Your task to perform on an android device: What's US dollar exchange rateagainst the Mexican Peso? Image 0: 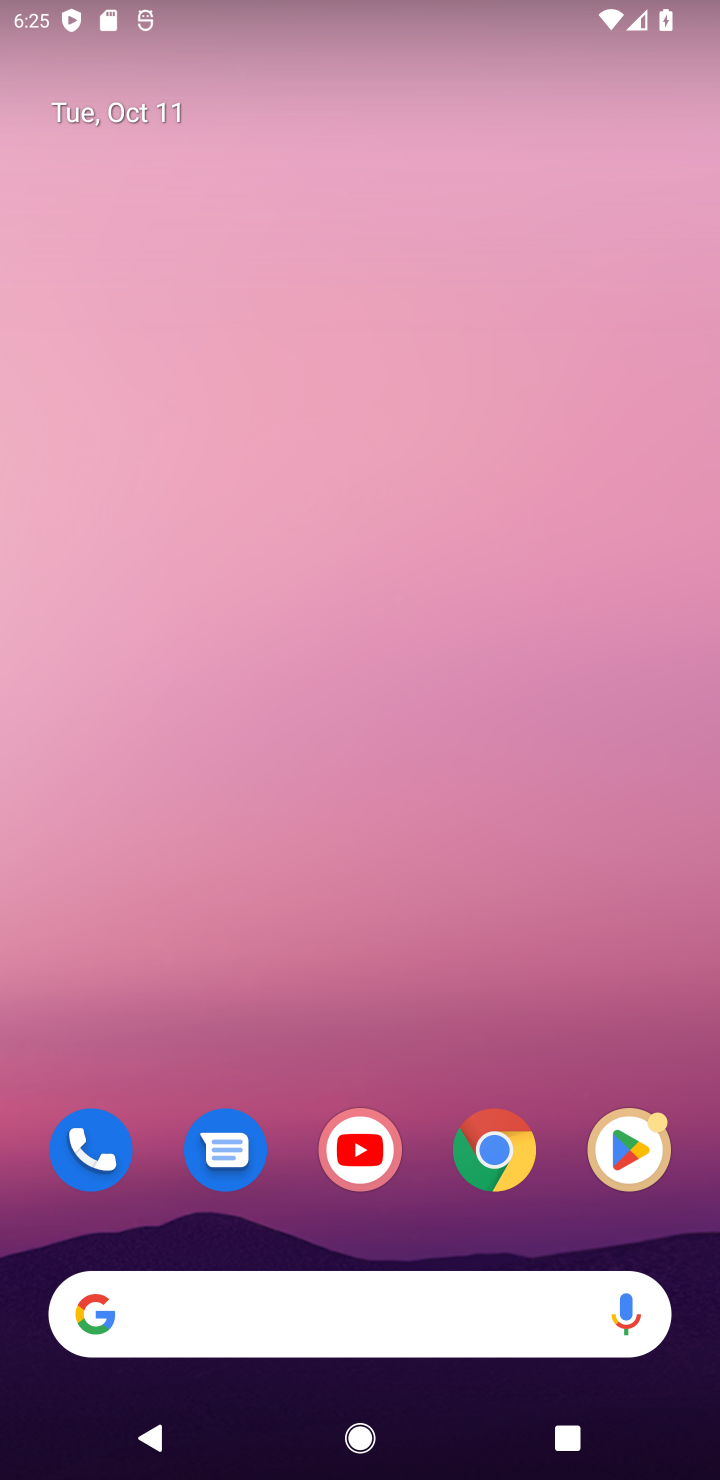
Step 0: click (490, 1149)
Your task to perform on an android device: What's US dollar exchange rateagainst the Mexican Peso? Image 1: 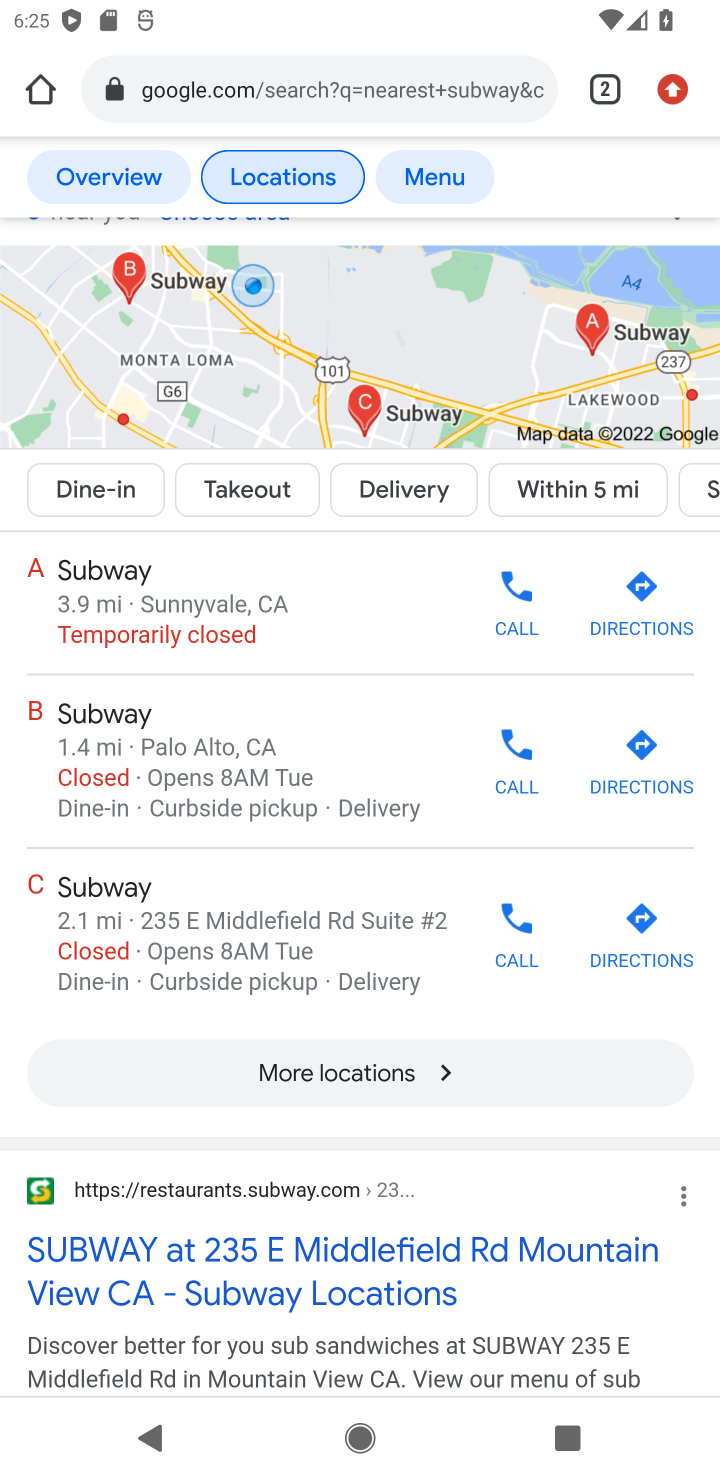
Step 1: click (301, 93)
Your task to perform on an android device: What's US dollar exchange rateagainst the Mexican Peso? Image 2: 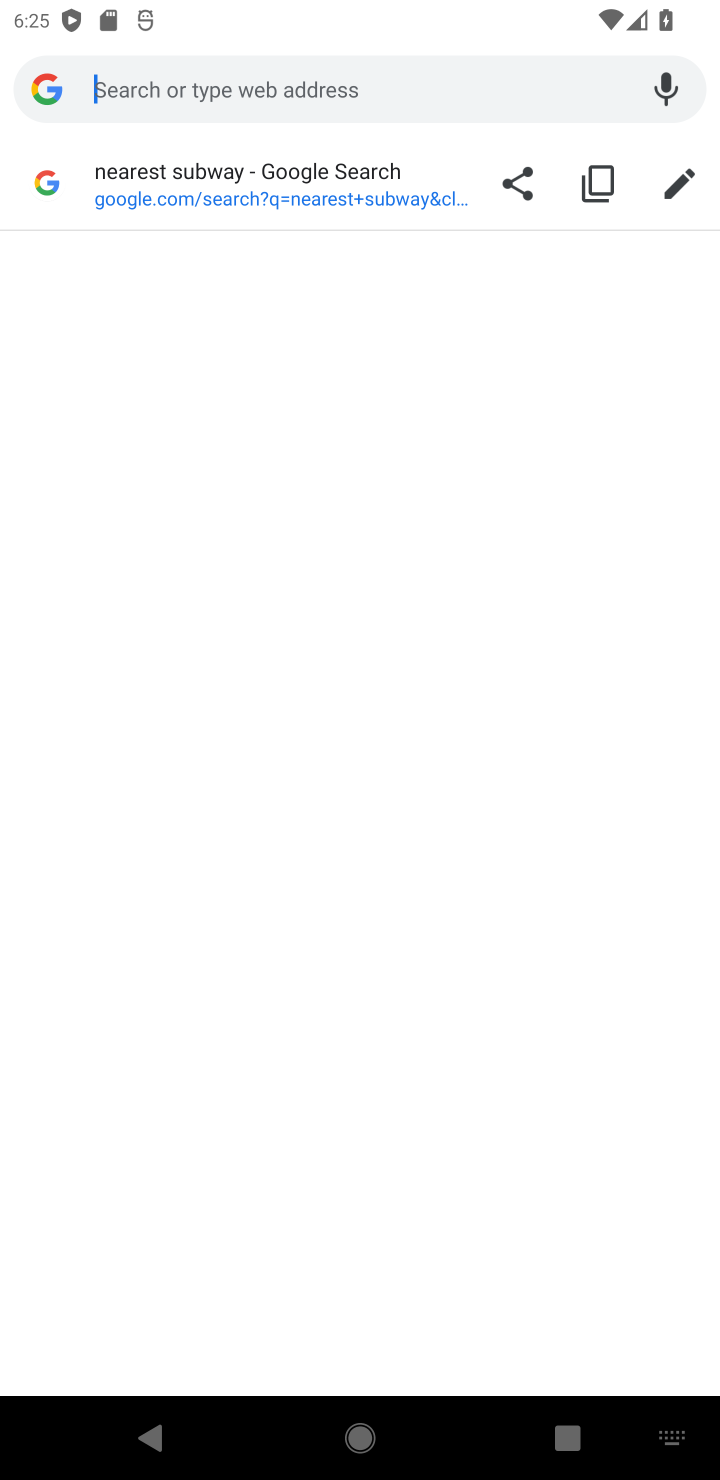
Step 2: type "US dollar exchange rateagainst the Mexican Peso"
Your task to perform on an android device: What's US dollar exchange rateagainst the Mexican Peso? Image 3: 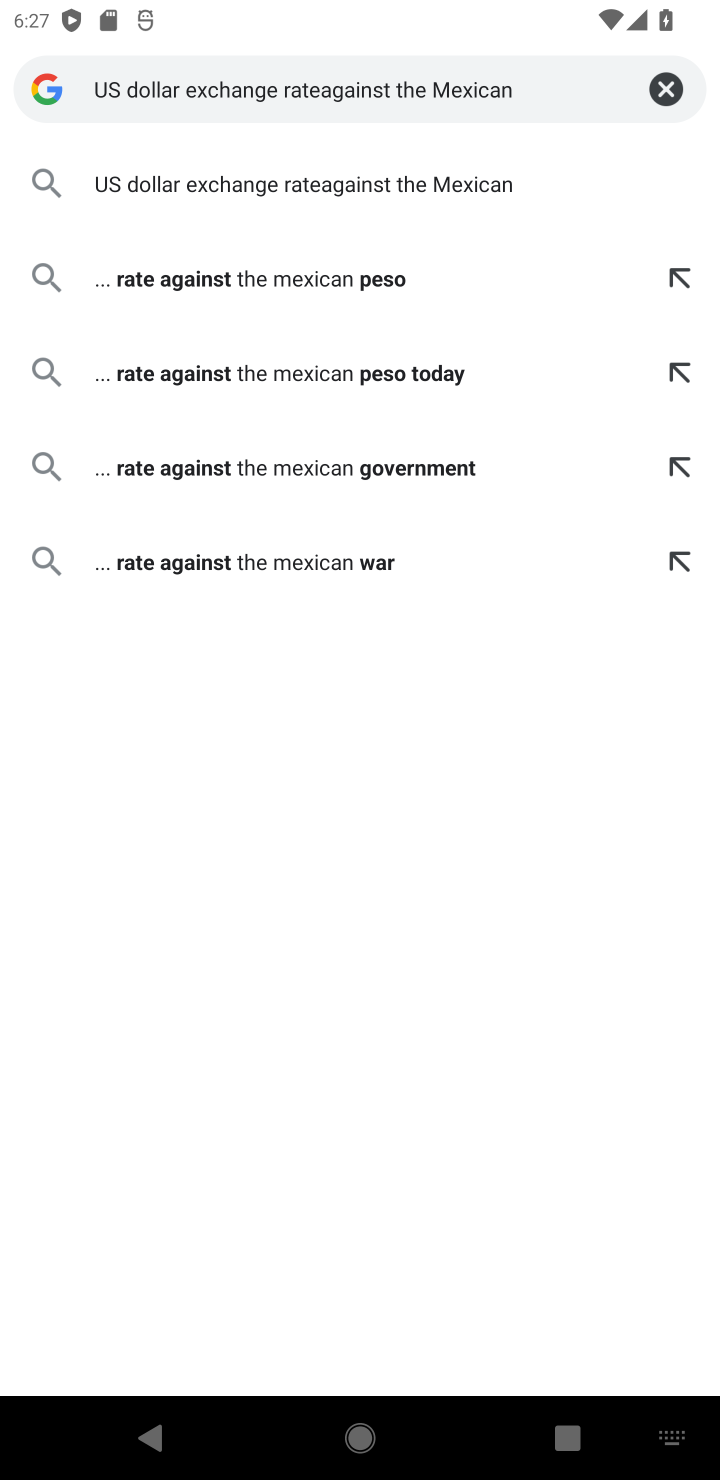
Step 3: type "peso"
Your task to perform on an android device: What's US dollar exchange rateagainst the Mexican Peso? Image 4: 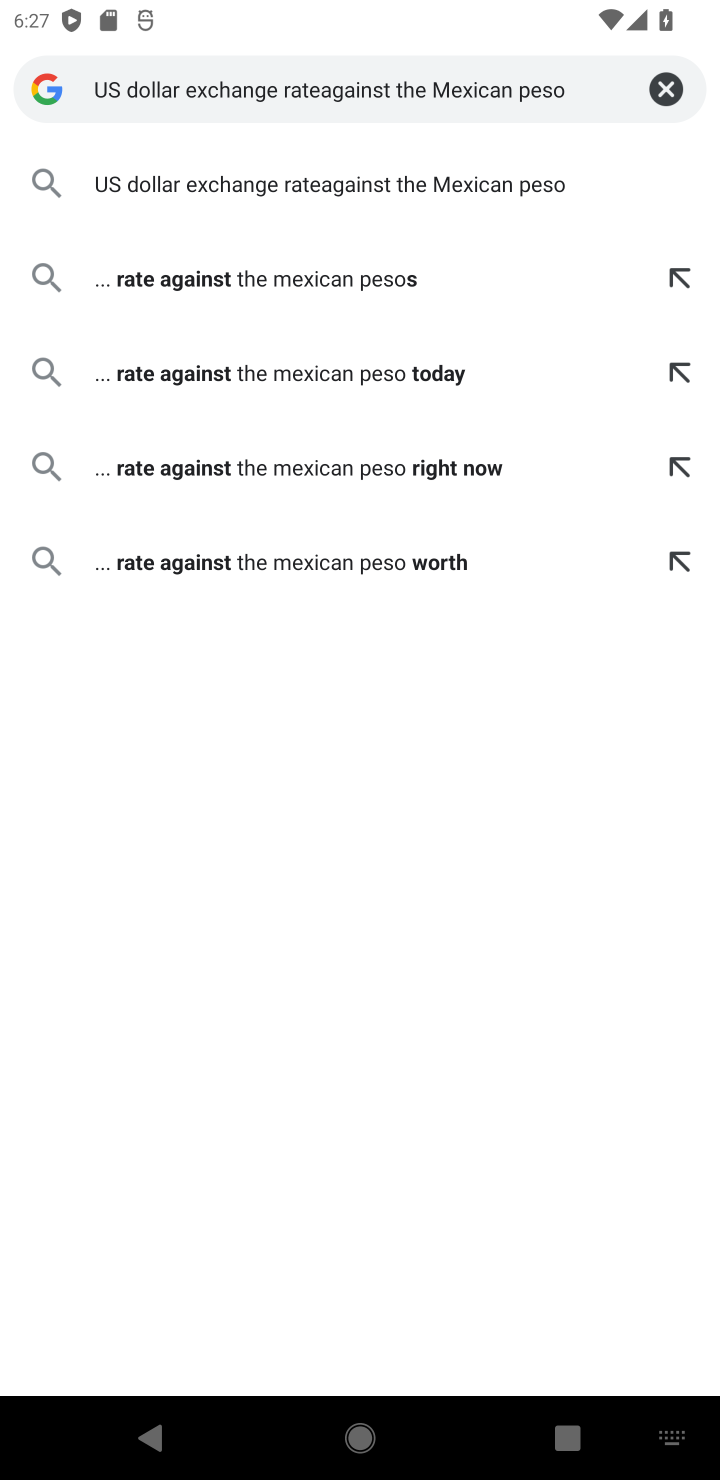
Step 4: click (425, 181)
Your task to perform on an android device: What's US dollar exchange rateagainst the Mexican Peso? Image 5: 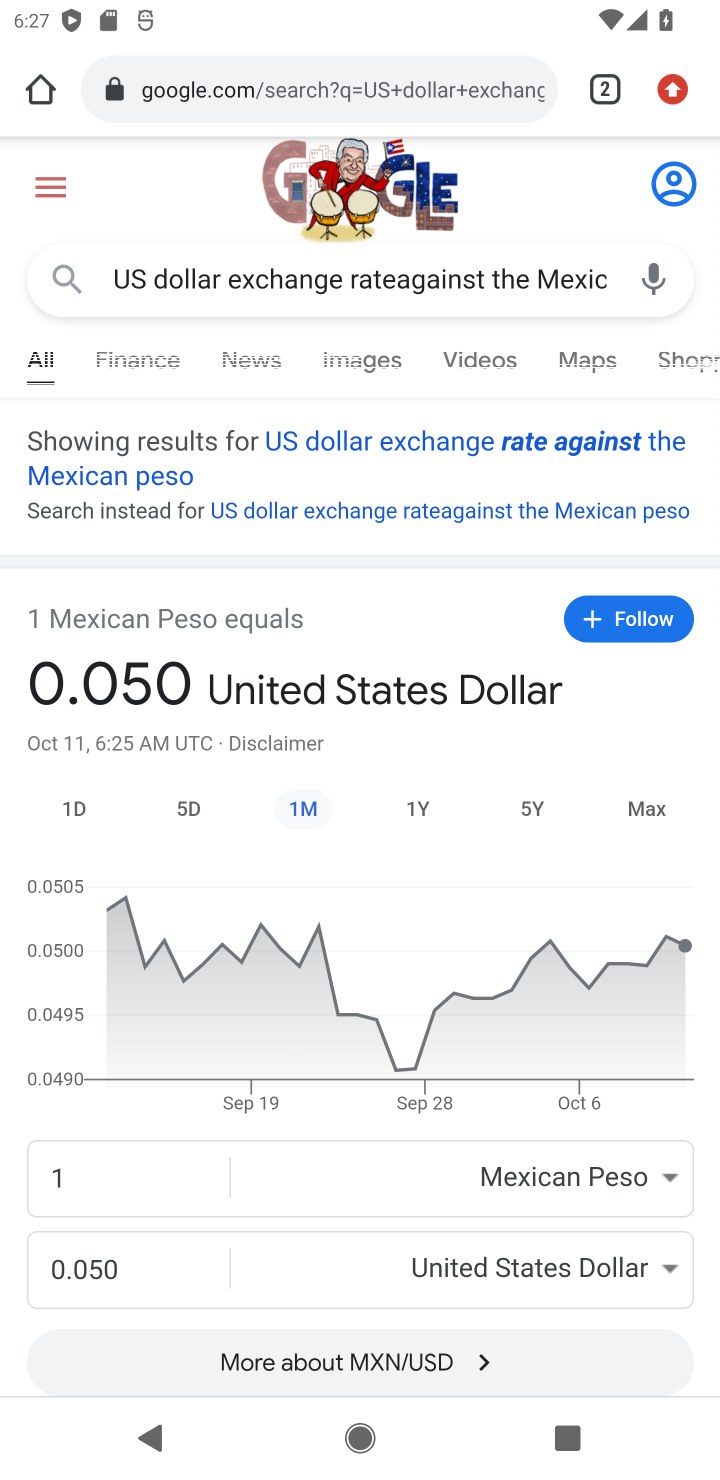
Step 5: task complete